Your task to perform on an android device: Open my contact list Image 0: 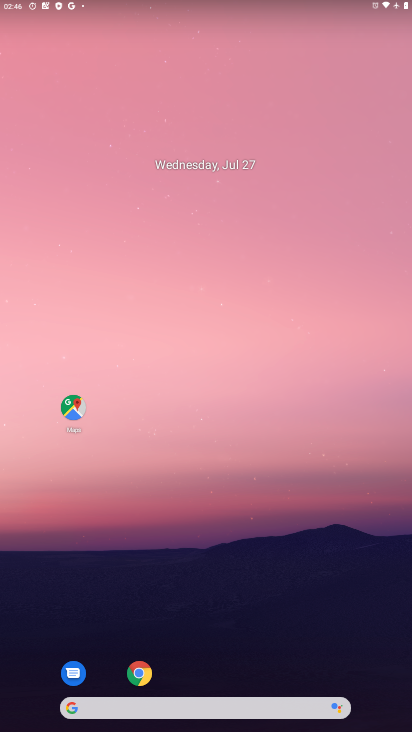
Step 0: drag from (198, 640) to (220, 4)
Your task to perform on an android device: Open my contact list Image 1: 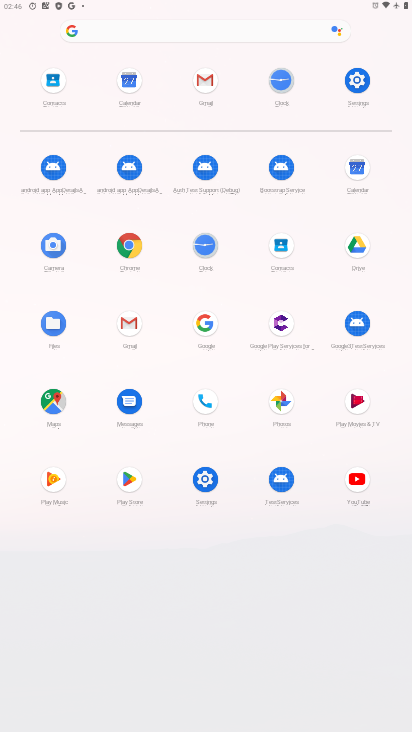
Step 1: click (280, 239)
Your task to perform on an android device: Open my contact list Image 2: 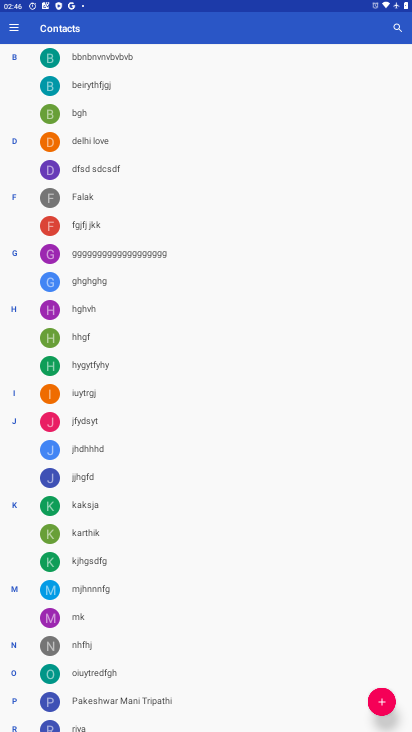
Step 2: task complete